Your task to perform on an android device: Go to internet settings Image 0: 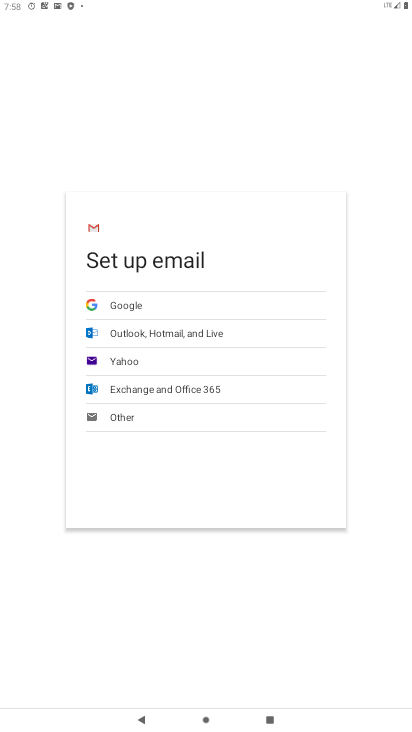
Step 0: press home button
Your task to perform on an android device: Go to internet settings Image 1: 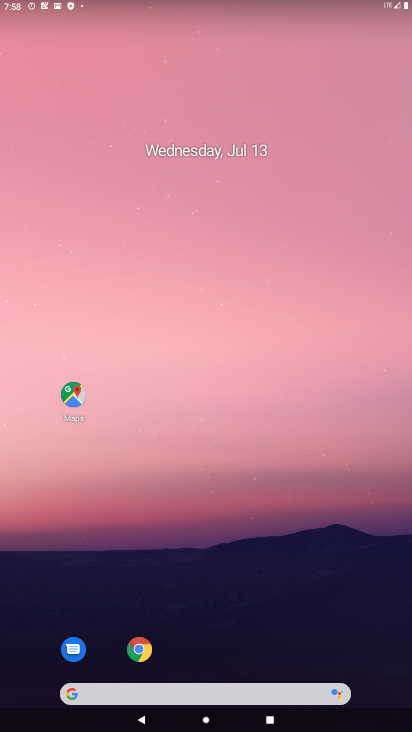
Step 1: drag from (208, 646) to (264, 156)
Your task to perform on an android device: Go to internet settings Image 2: 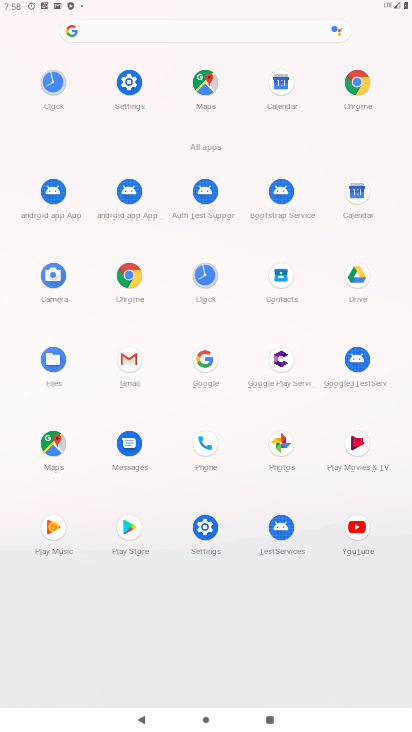
Step 2: click (198, 532)
Your task to perform on an android device: Go to internet settings Image 3: 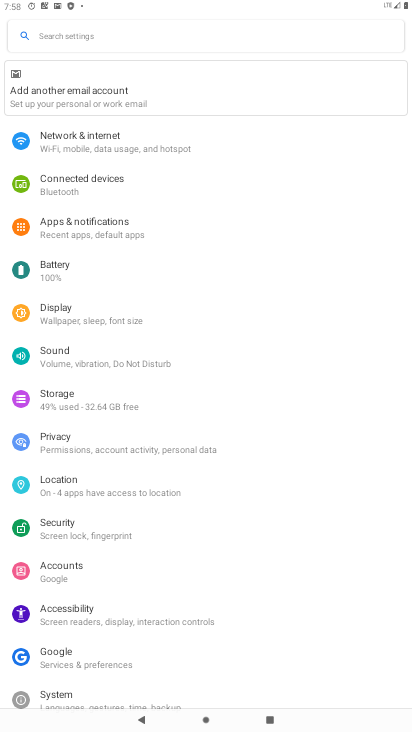
Step 3: click (120, 146)
Your task to perform on an android device: Go to internet settings Image 4: 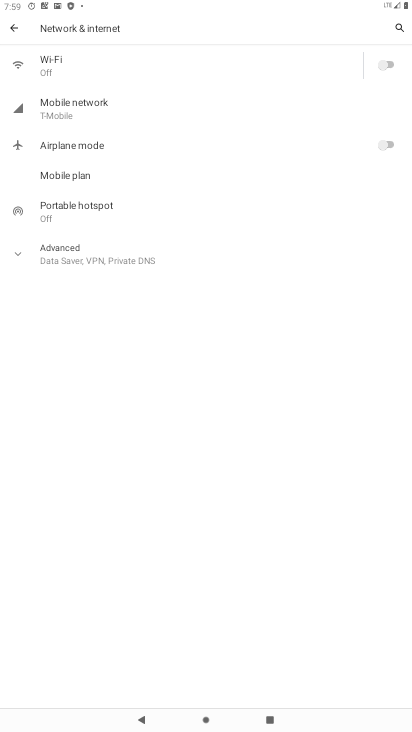
Step 4: task complete